Your task to perform on an android device: toggle sleep mode Image 0: 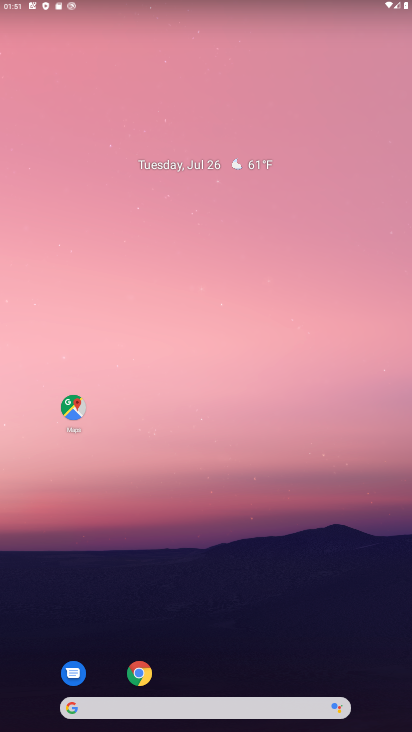
Step 0: drag from (210, 726) to (169, 219)
Your task to perform on an android device: toggle sleep mode Image 1: 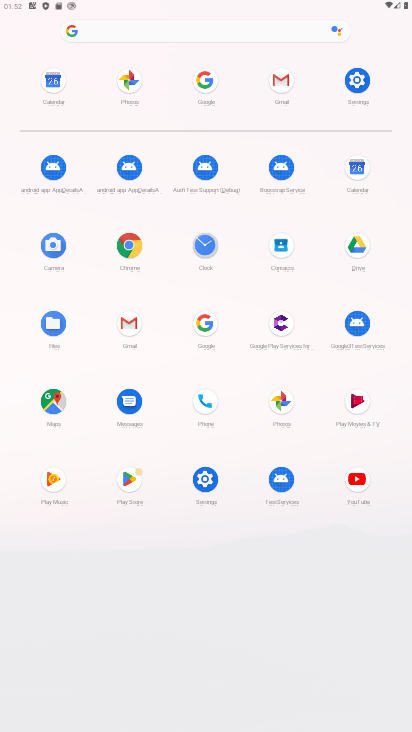
Step 1: click (354, 82)
Your task to perform on an android device: toggle sleep mode Image 2: 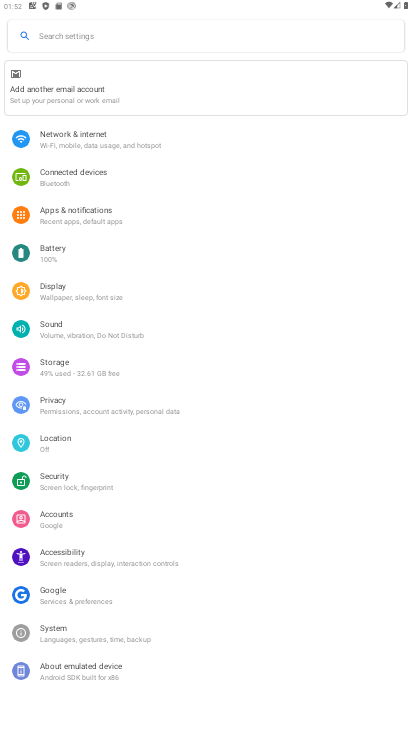
Step 2: press home button
Your task to perform on an android device: toggle sleep mode Image 3: 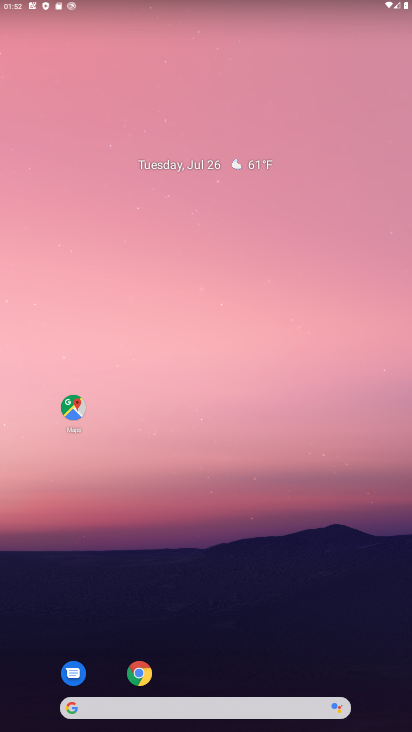
Step 3: drag from (211, 685) to (173, 88)
Your task to perform on an android device: toggle sleep mode Image 4: 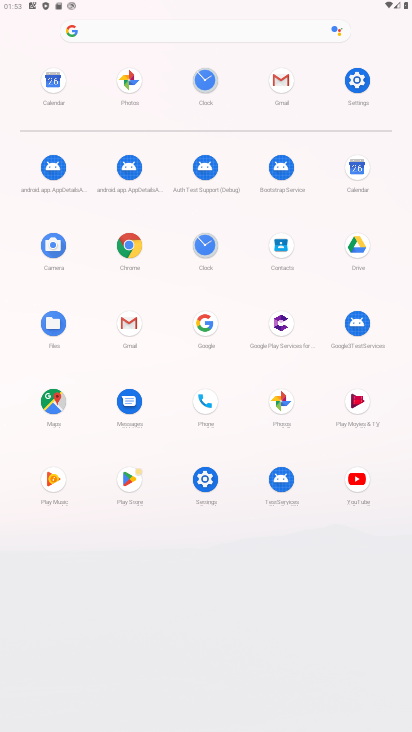
Step 4: click (359, 83)
Your task to perform on an android device: toggle sleep mode Image 5: 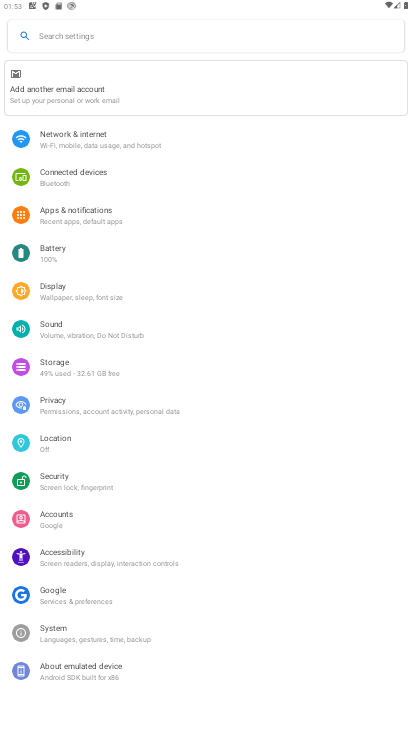
Step 5: click (73, 298)
Your task to perform on an android device: toggle sleep mode Image 6: 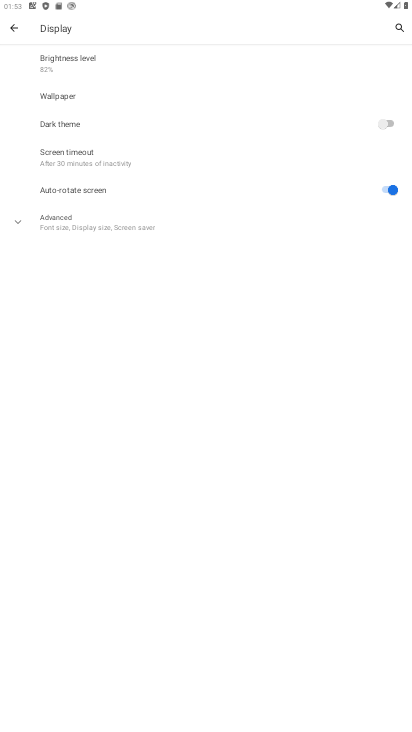
Step 6: task complete